Your task to perform on an android device: turn off smart reply in the gmail app Image 0: 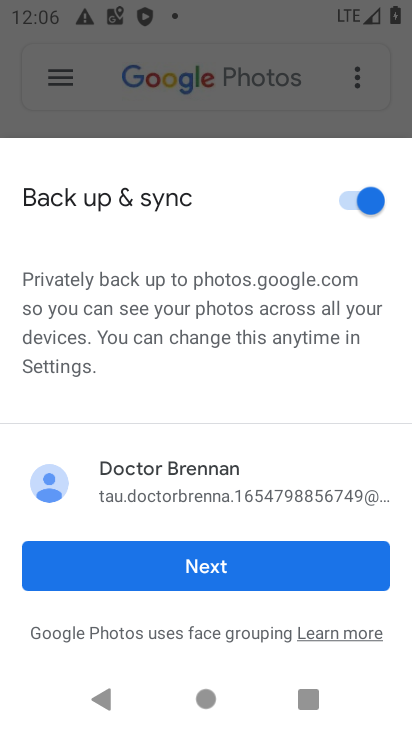
Step 0: press home button
Your task to perform on an android device: turn off smart reply in the gmail app Image 1: 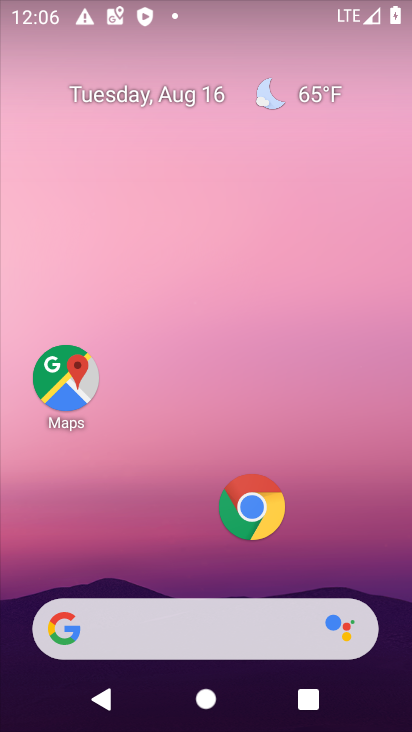
Step 1: drag from (184, 584) to (160, 144)
Your task to perform on an android device: turn off smart reply in the gmail app Image 2: 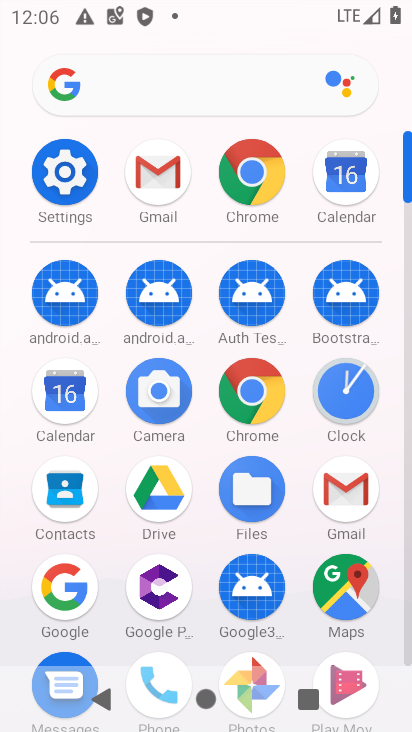
Step 2: click (156, 172)
Your task to perform on an android device: turn off smart reply in the gmail app Image 3: 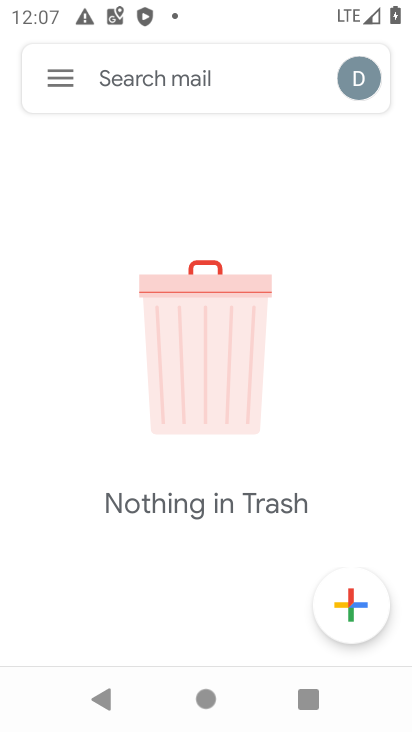
Step 3: click (60, 75)
Your task to perform on an android device: turn off smart reply in the gmail app Image 4: 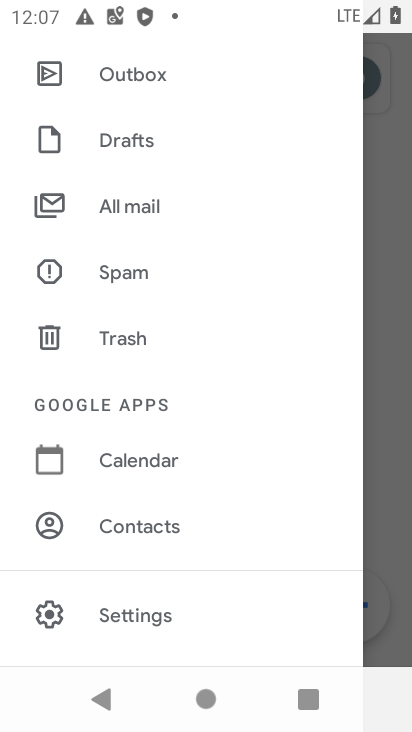
Step 4: click (129, 607)
Your task to perform on an android device: turn off smart reply in the gmail app Image 5: 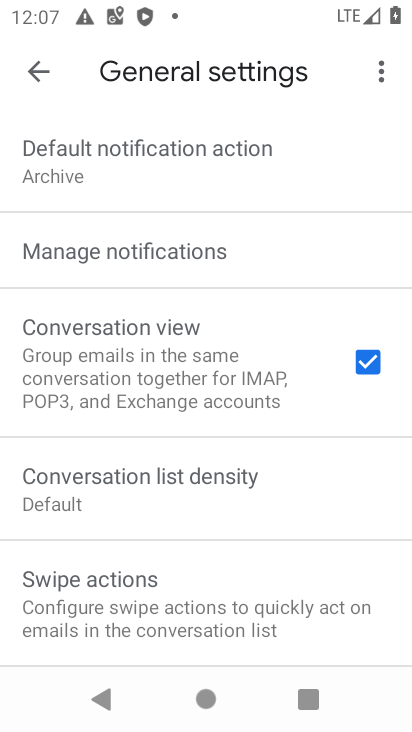
Step 5: click (42, 64)
Your task to perform on an android device: turn off smart reply in the gmail app Image 6: 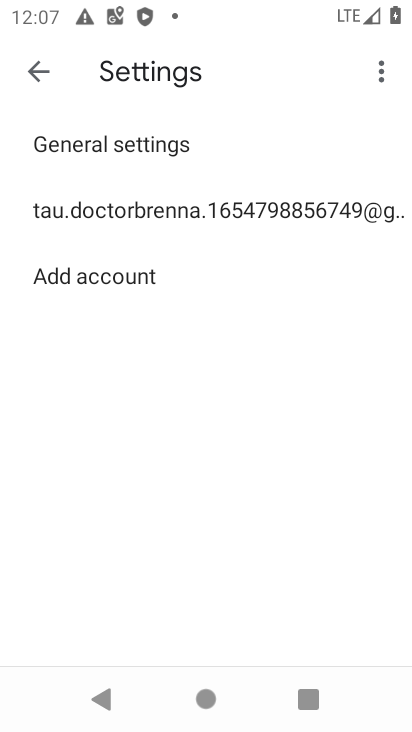
Step 6: click (104, 204)
Your task to perform on an android device: turn off smart reply in the gmail app Image 7: 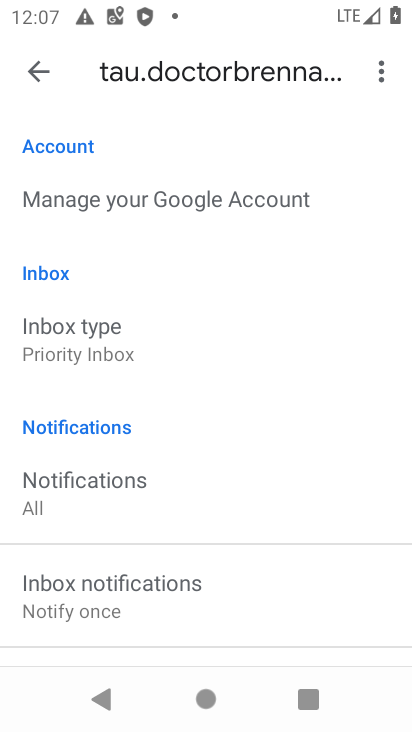
Step 7: drag from (199, 539) to (173, 239)
Your task to perform on an android device: turn off smart reply in the gmail app Image 8: 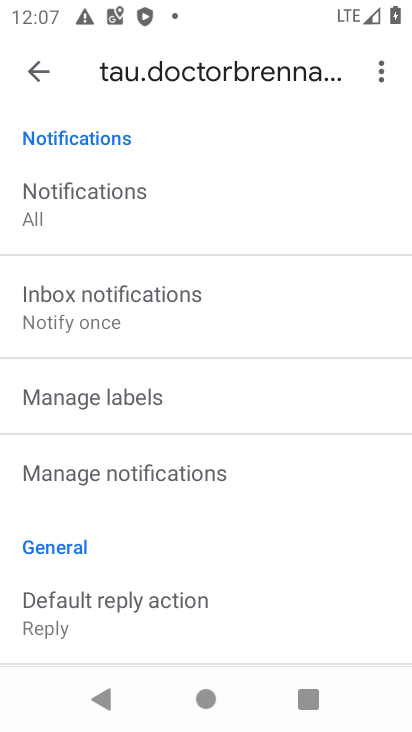
Step 8: drag from (186, 534) to (158, 215)
Your task to perform on an android device: turn off smart reply in the gmail app Image 9: 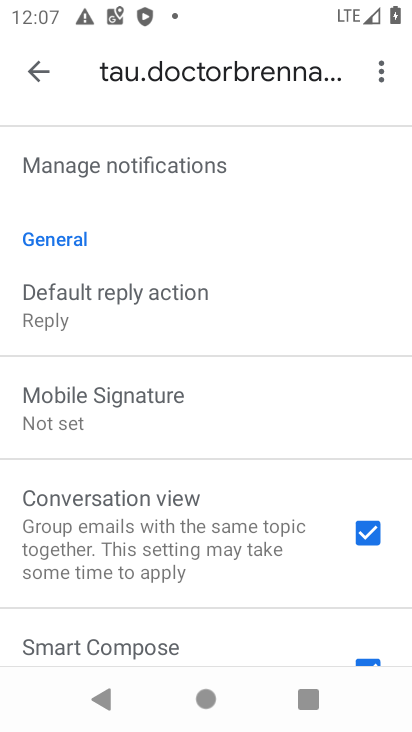
Step 9: drag from (201, 446) to (176, 197)
Your task to perform on an android device: turn off smart reply in the gmail app Image 10: 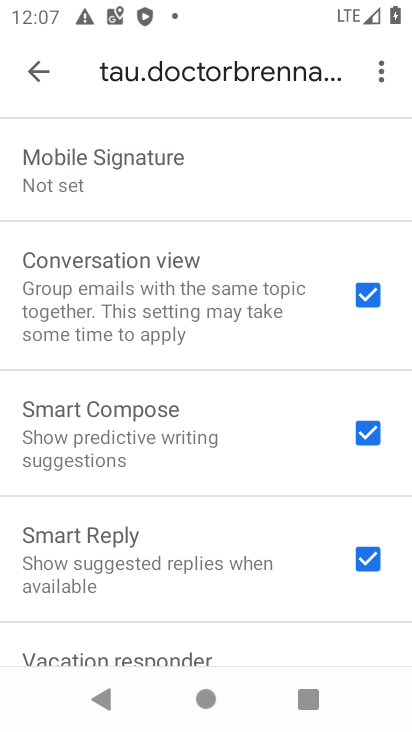
Step 10: click (367, 560)
Your task to perform on an android device: turn off smart reply in the gmail app Image 11: 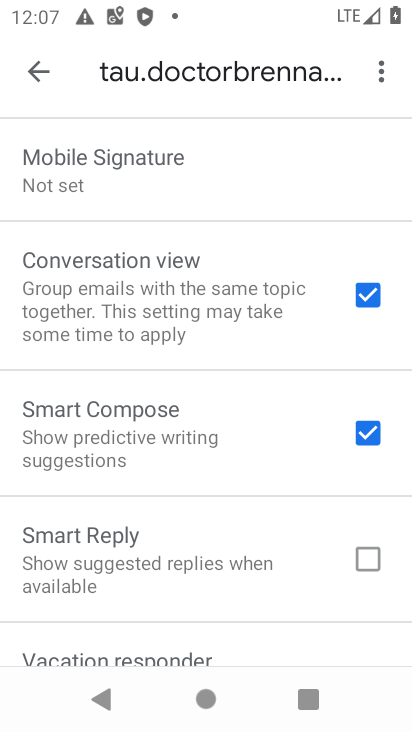
Step 11: task complete